Your task to perform on an android device: Go to battery settings Image 0: 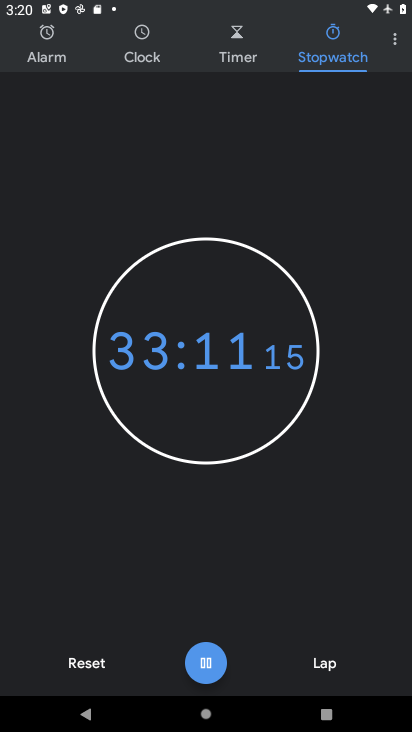
Step 0: press home button
Your task to perform on an android device: Go to battery settings Image 1: 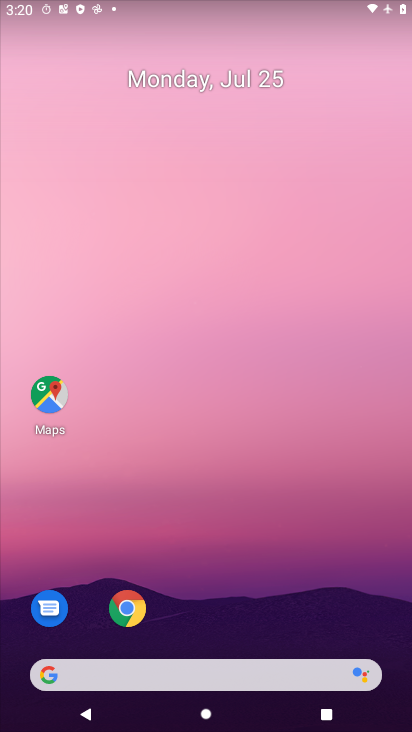
Step 1: drag from (264, 652) to (322, 238)
Your task to perform on an android device: Go to battery settings Image 2: 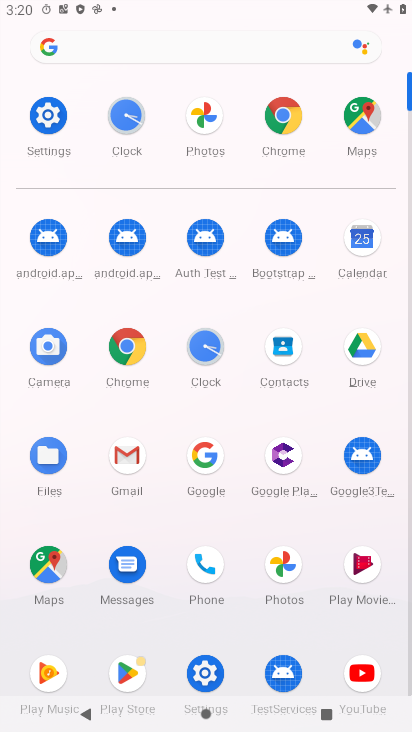
Step 2: click (49, 133)
Your task to perform on an android device: Go to battery settings Image 3: 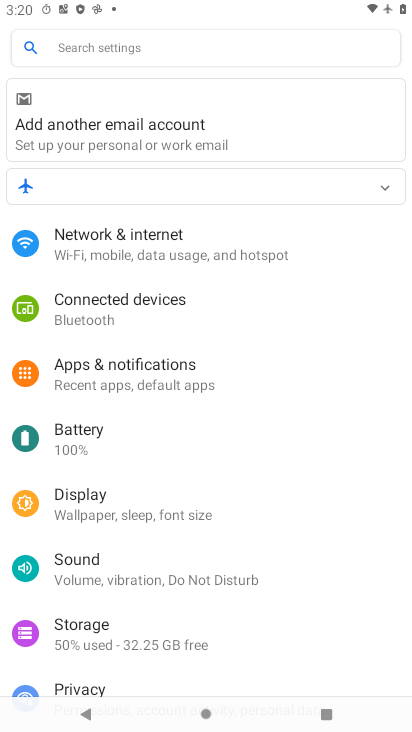
Step 3: click (86, 421)
Your task to perform on an android device: Go to battery settings Image 4: 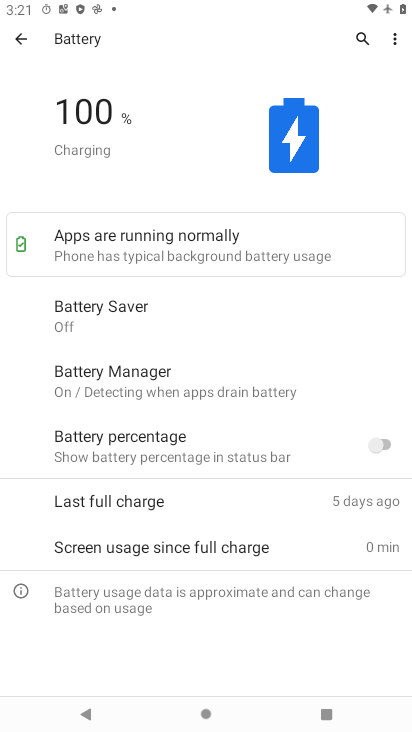
Step 4: task complete